Your task to perform on an android device: add a contact in the contacts app Image 0: 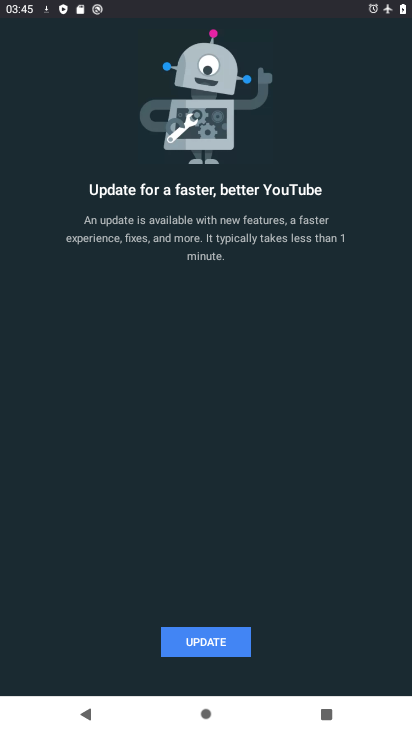
Step 0: press home button
Your task to perform on an android device: add a contact in the contacts app Image 1: 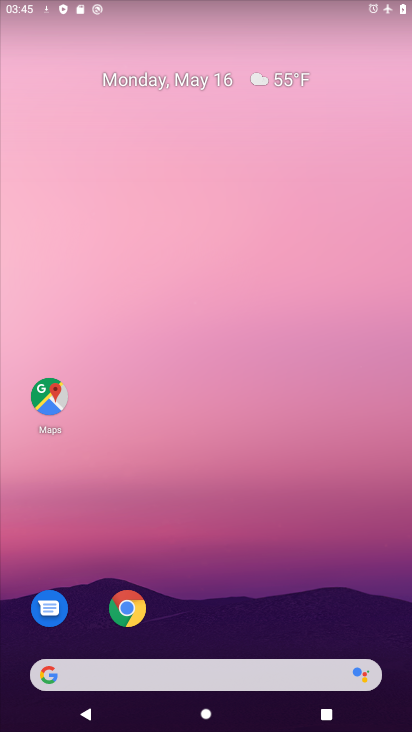
Step 1: drag from (215, 635) to (231, 195)
Your task to perform on an android device: add a contact in the contacts app Image 2: 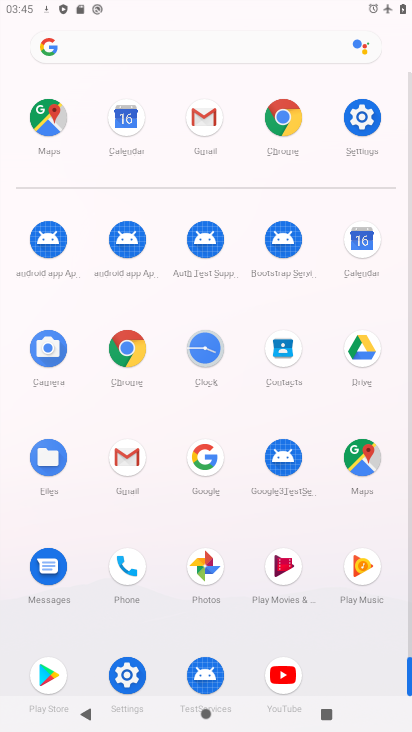
Step 2: click (299, 360)
Your task to perform on an android device: add a contact in the contacts app Image 3: 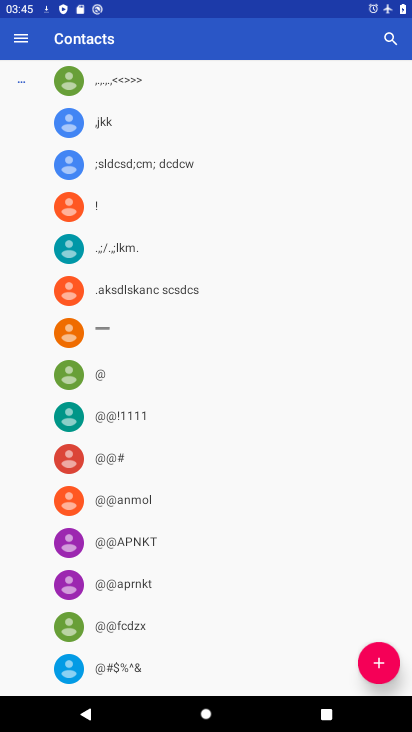
Step 3: click (379, 657)
Your task to perform on an android device: add a contact in the contacts app Image 4: 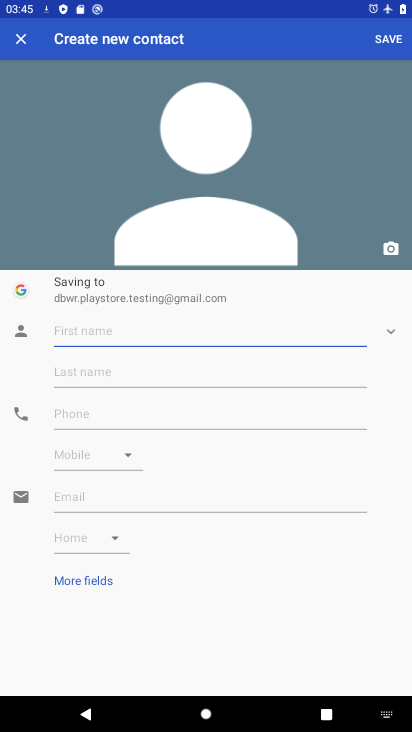
Step 4: click (111, 321)
Your task to perform on an android device: add a contact in the contacts app Image 5: 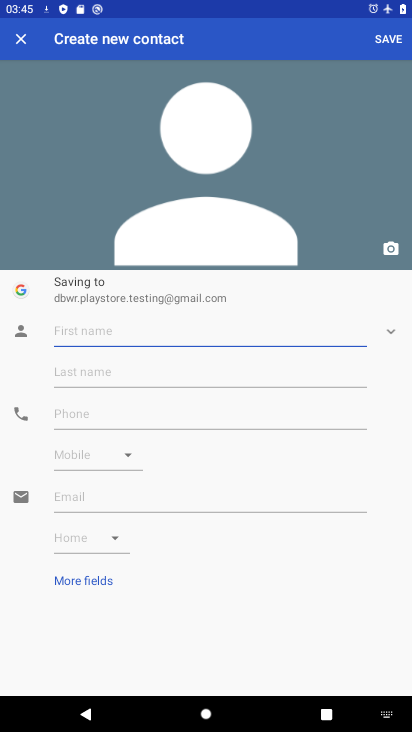
Step 5: type "hckghcv"
Your task to perform on an android device: add a contact in the contacts app Image 6: 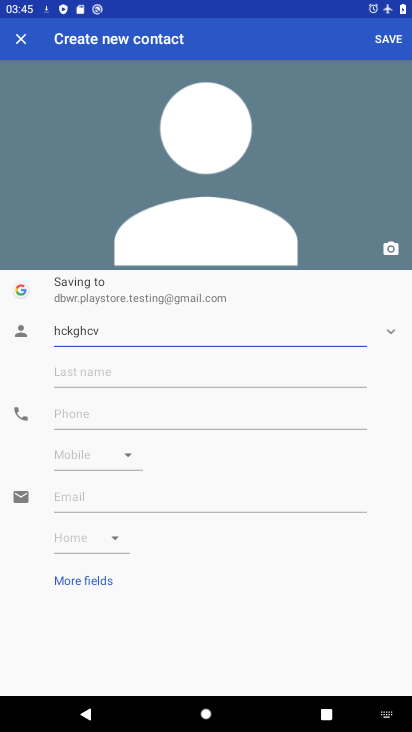
Step 6: click (80, 420)
Your task to perform on an android device: add a contact in the contacts app Image 7: 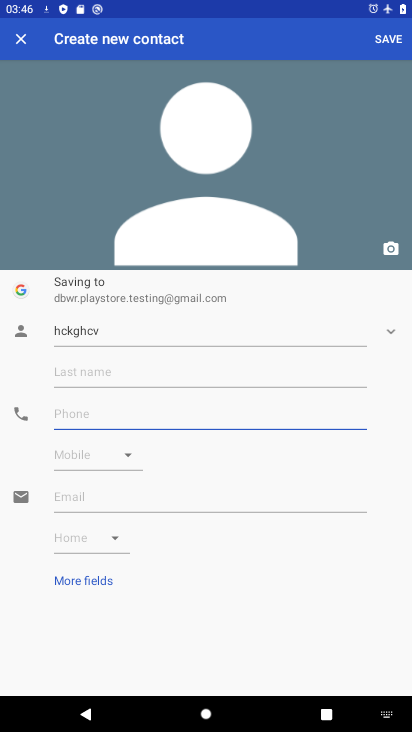
Step 7: type "7575765767"
Your task to perform on an android device: add a contact in the contacts app Image 8: 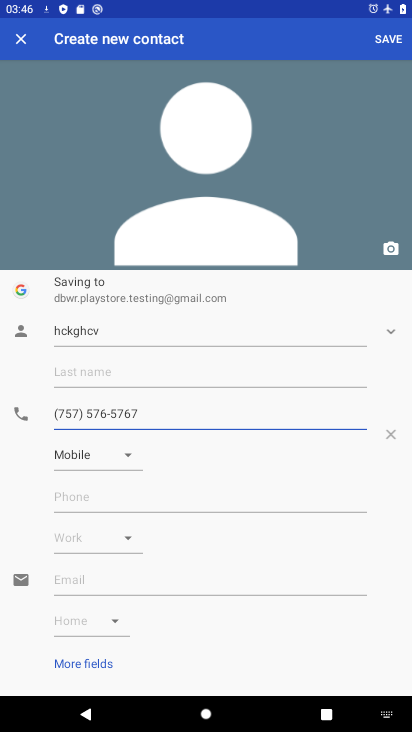
Step 8: click (376, 37)
Your task to perform on an android device: add a contact in the contacts app Image 9: 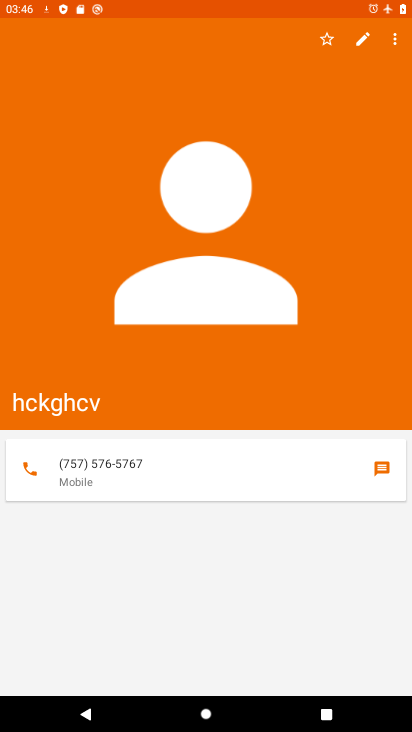
Step 9: task complete